Your task to perform on an android device: Open Chrome and go to settings Image 0: 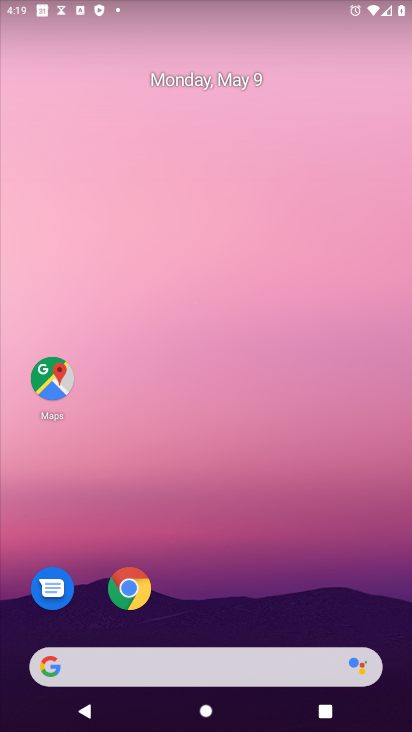
Step 0: click (138, 580)
Your task to perform on an android device: Open Chrome and go to settings Image 1: 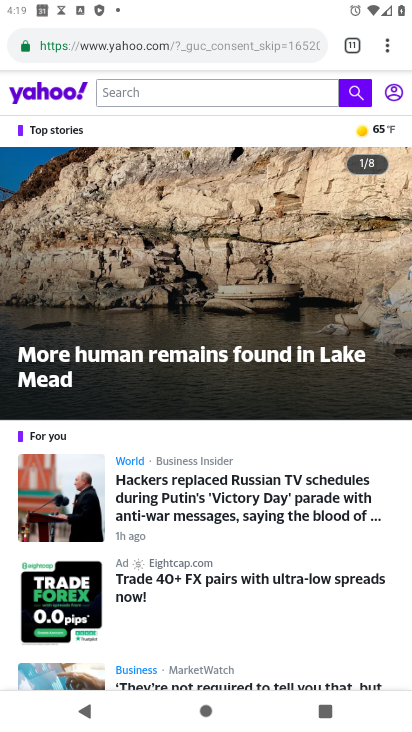
Step 1: click (383, 41)
Your task to perform on an android device: Open Chrome and go to settings Image 2: 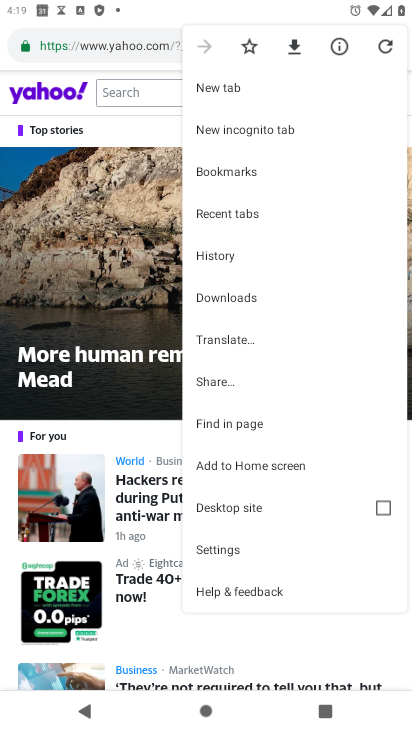
Step 2: click (242, 554)
Your task to perform on an android device: Open Chrome and go to settings Image 3: 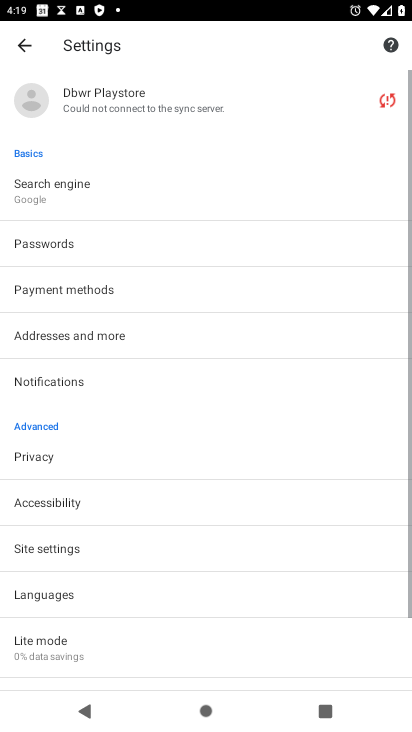
Step 3: task complete